Your task to perform on an android device: Go to internet settings Image 0: 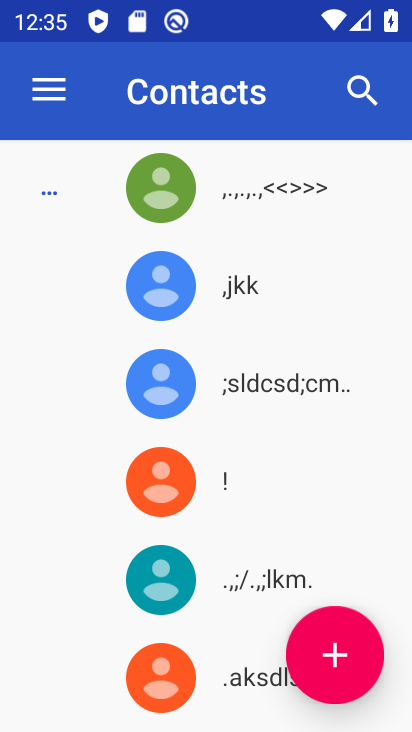
Step 0: press home button
Your task to perform on an android device: Go to internet settings Image 1: 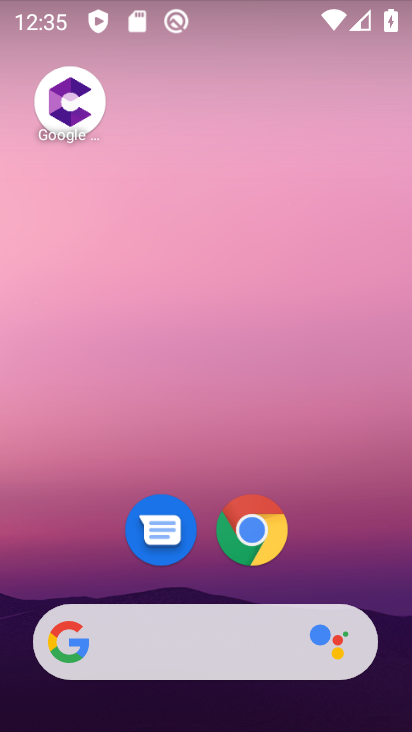
Step 1: drag from (200, 596) to (162, 50)
Your task to perform on an android device: Go to internet settings Image 2: 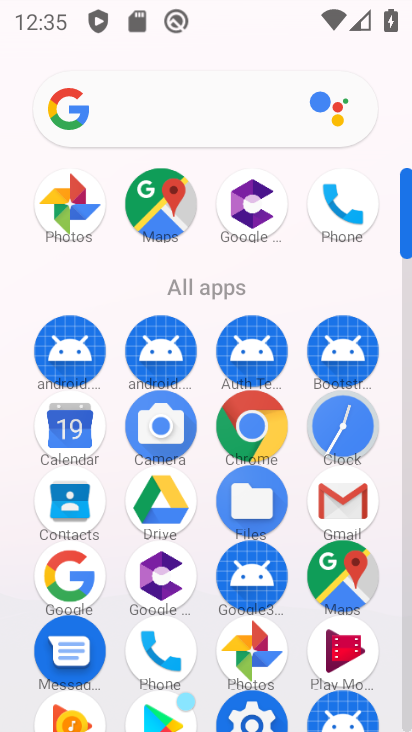
Step 2: click (224, 710)
Your task to perform on an android device: Go to internet settings Image 3: 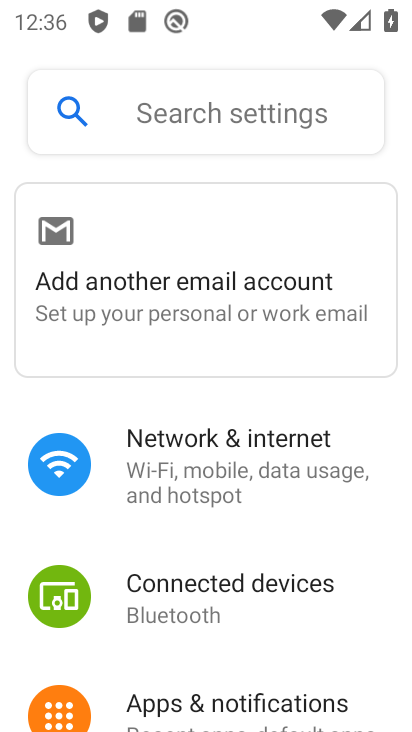
Step 3: drag from (270, 629) to (249, 407)
Your task to perform on an android device: Go to internet settings Image 4: 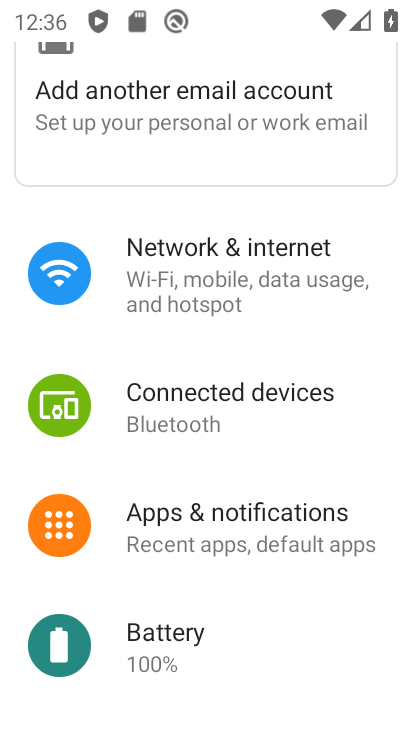
Step 4: click (251, 302)
Your task to perform on an android device: Go to internet settings Image 5: 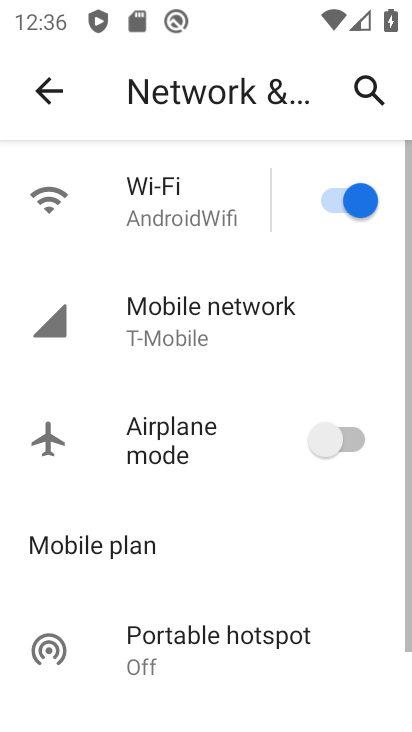
Step 5: click (179, 312)
Your task to perform on an android device: Go to internet settings Image 6: 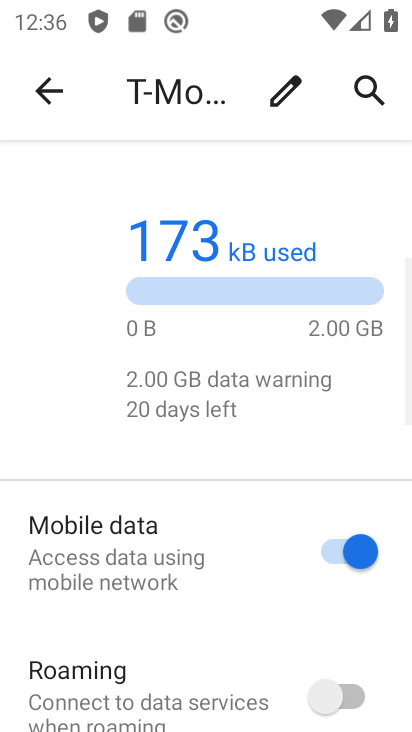
Step 6: task complete